Your task to perform on an android device: View the shopping cart on target.com. Search for alienware area 51 on target.com, select the first entry, add it to the cart, then select checkout. Image 0: 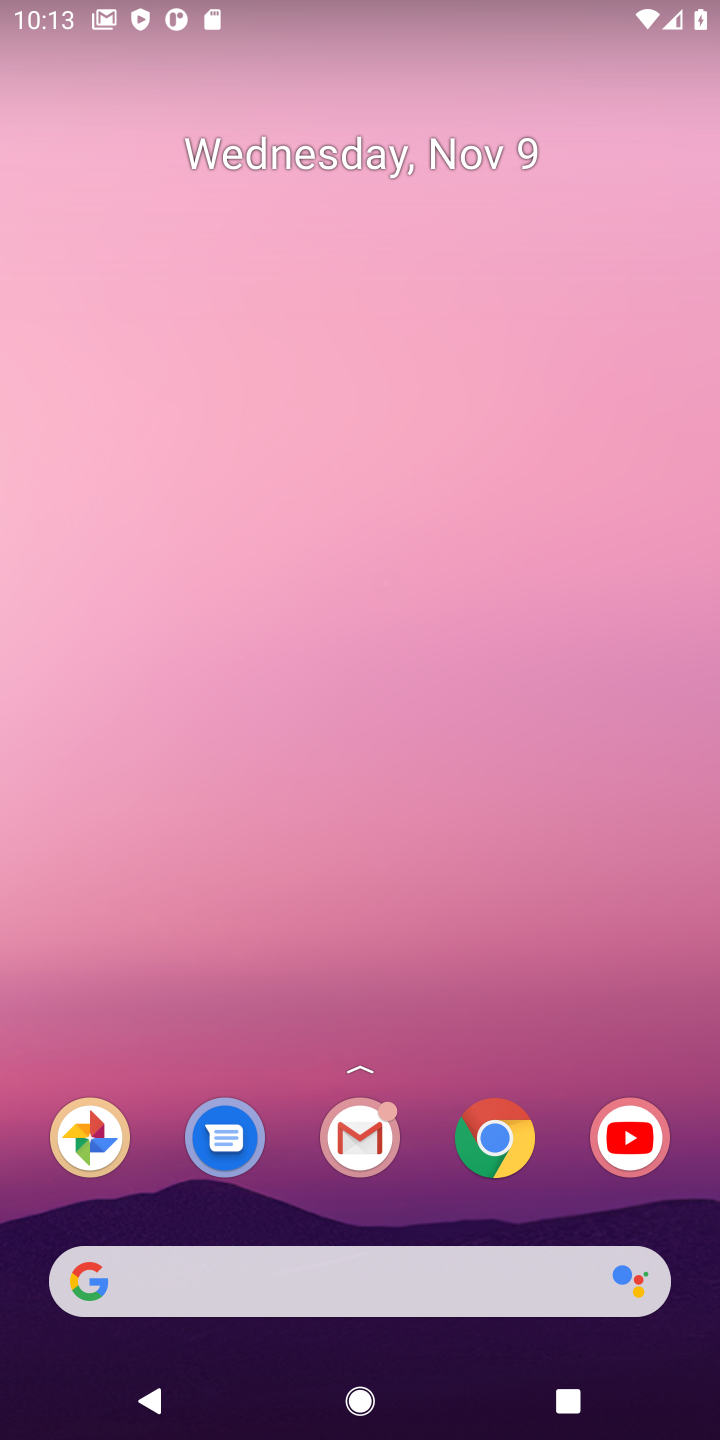
Step 0: drag from (432, 1128) to (473, 55)
Your task to perform on an android device: View the shopping cart on target.com. Search for alienware area 51 on target.com, select the first entry, add it to the cart, then select checkout. Image 1: 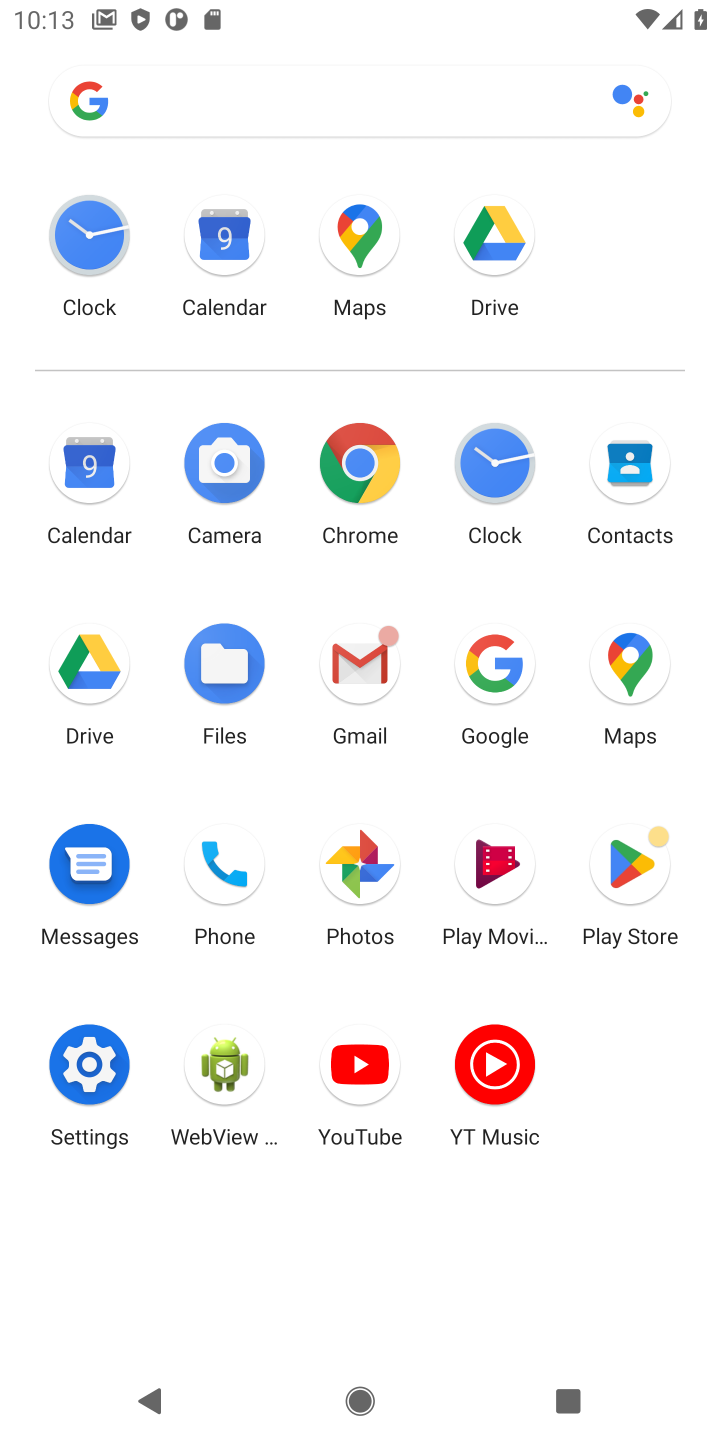
Step 1: click (377, 468)
Your task to perform on an android device: View the shopping cart on target.com. Search for alienware area 51 on target.com, select the first entry, add it to the cart, then select checkout. Image 2: 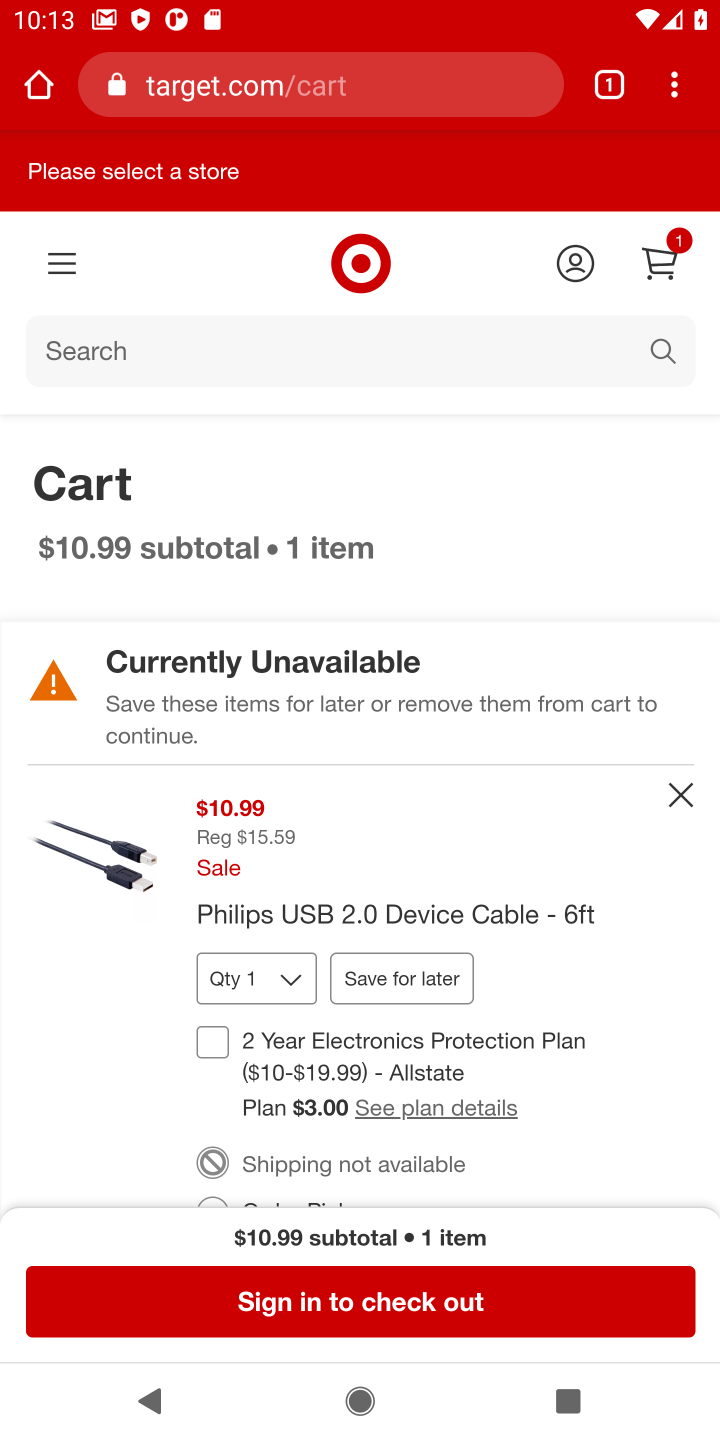
Step 2: click (409, 93)
Your task to perform on an android device: View the shopping cart on target.com. Search for alienware area 51 on target.com, select the first entry, add it to the cart, then select checkout. Image 3: 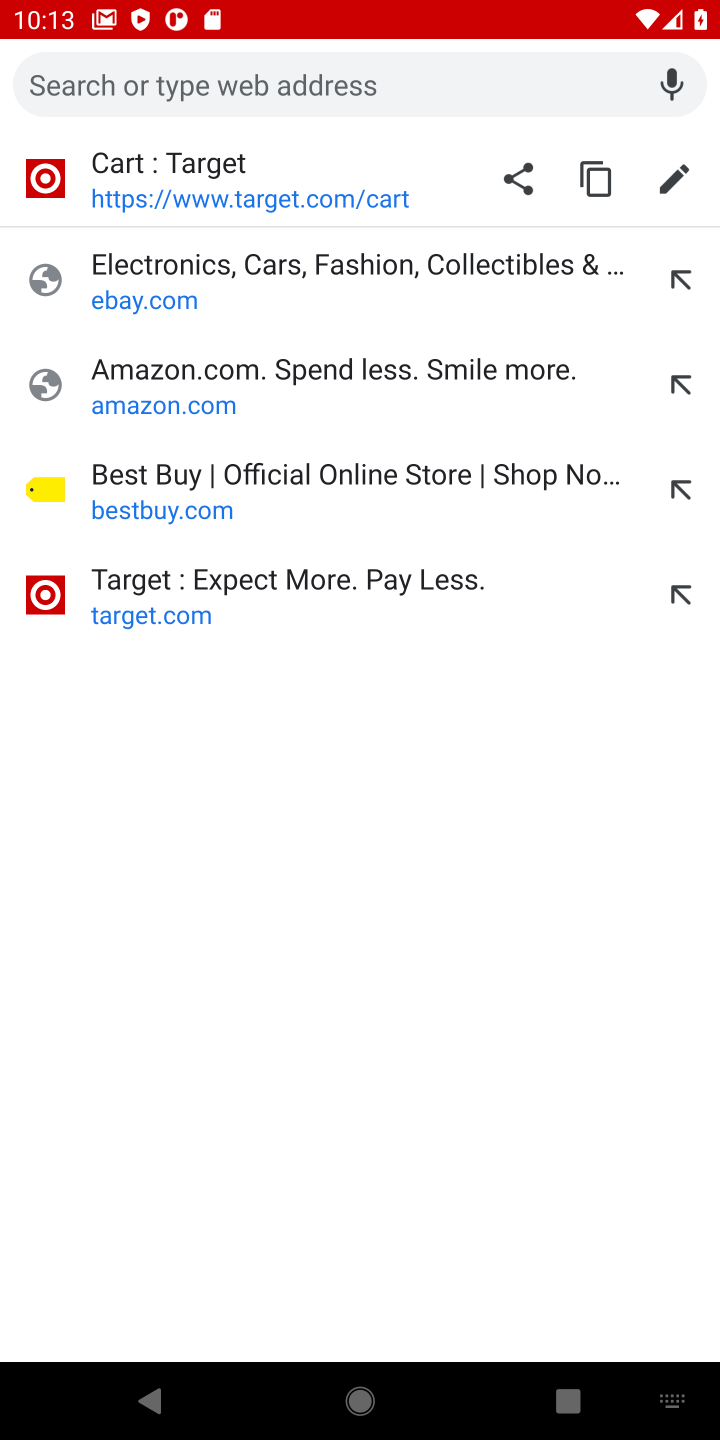
Step 3: type "target.com"
Your task to perform on an android device: View the shopping cart on target.com. Search for alienware area 51 on target.com, select the first entry, add it to the cart, then select checkout. Image 4: 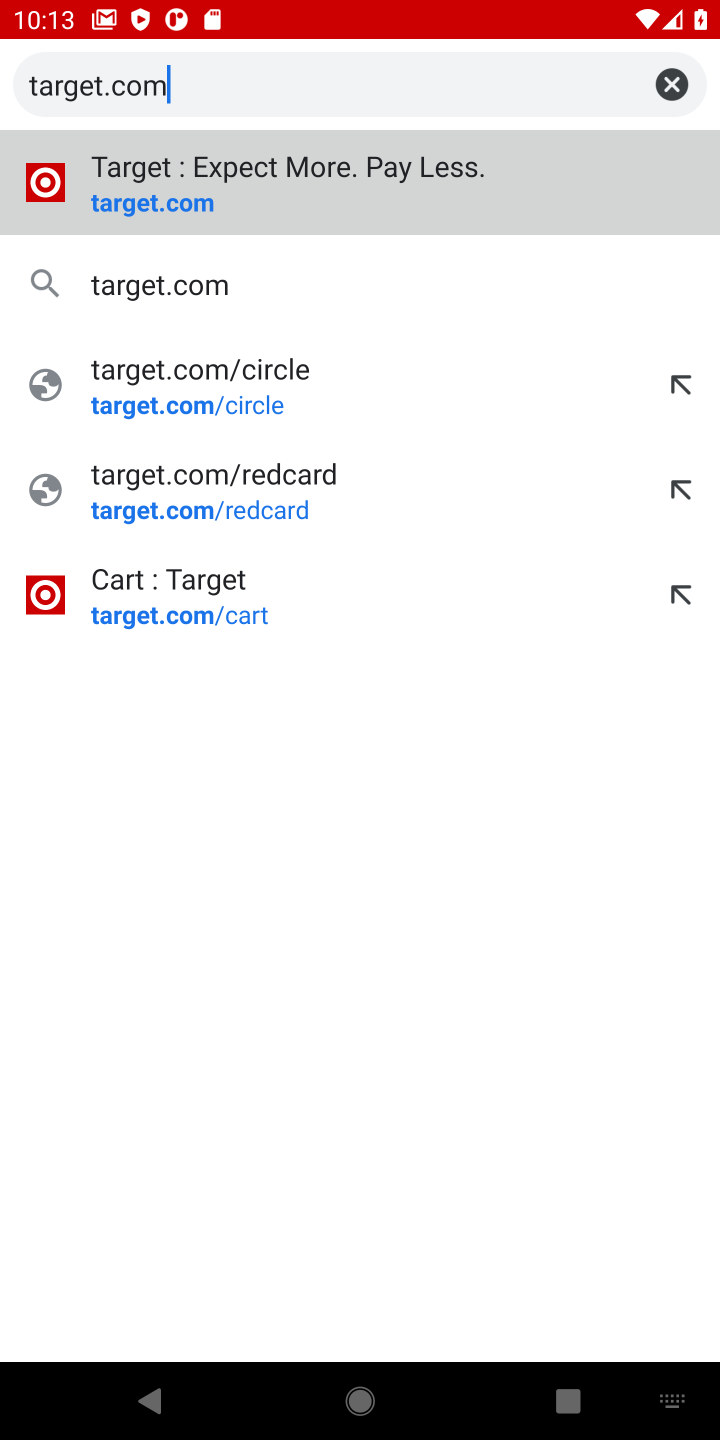
Step 4: press enter
Your task to perform on an android device: View the shopping cart on target.com. Search for alienware area 51 on target.com, select the first entry, add it to the cart, then select checkout. Image 5: 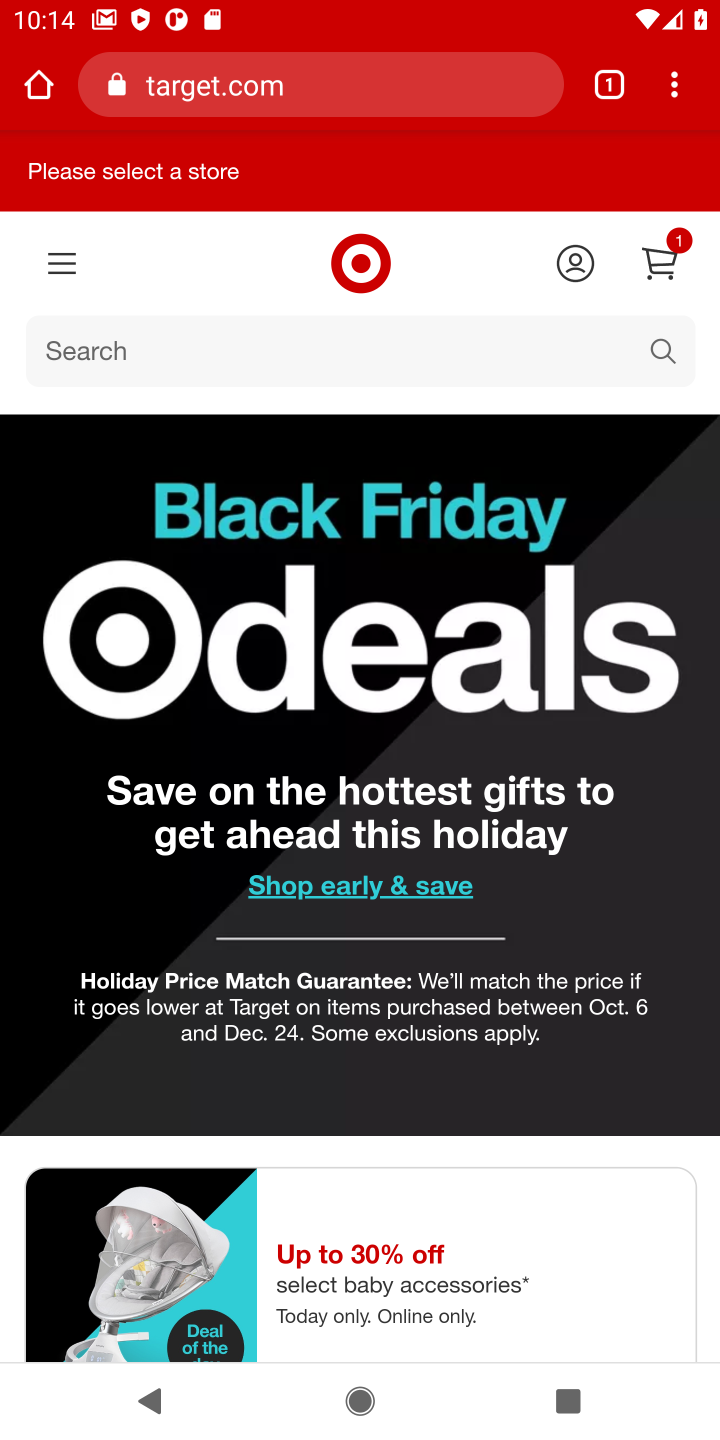
Step 5: click (655, 243)
Your task to perform on an android device: View the shopping cart on target.com. Search for alienware area 51 on target.com, select the first entry, add it to the cart, then select checkout. Image 6: 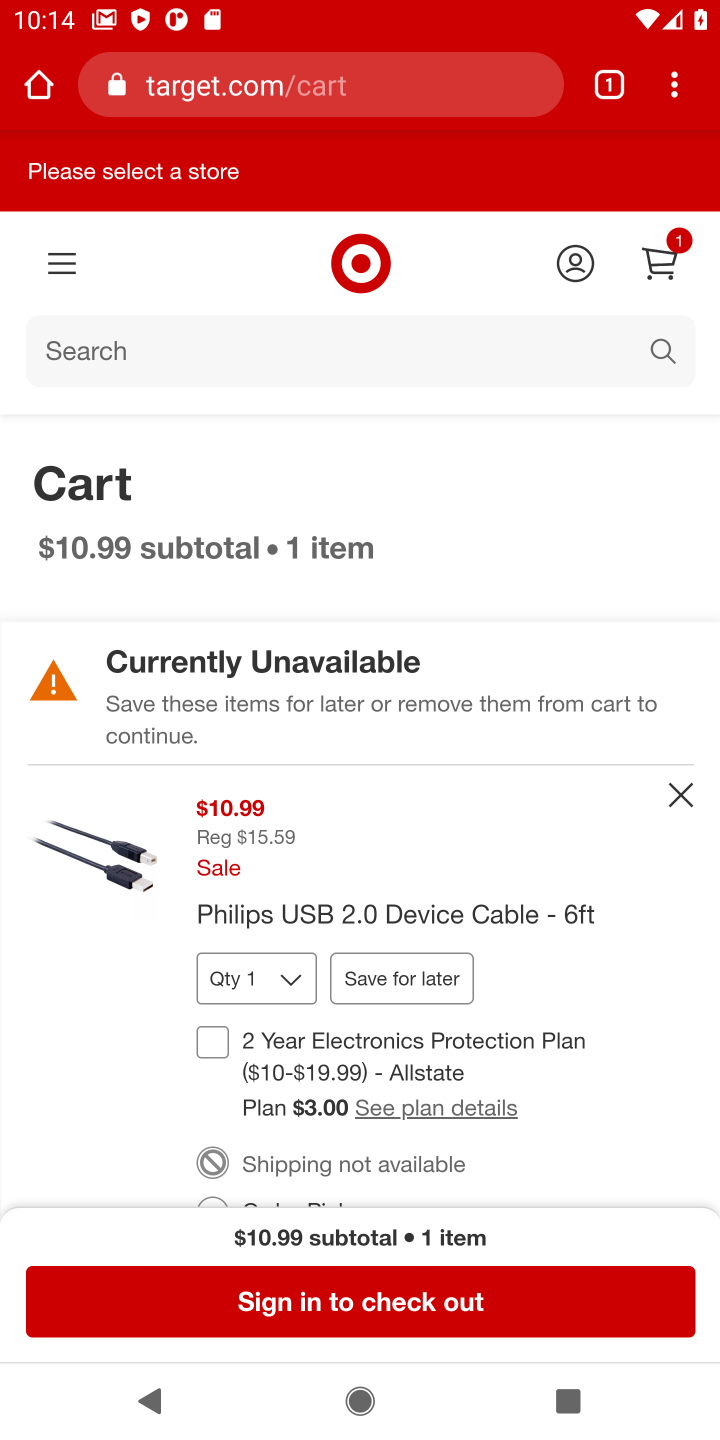
Step 6: click (320, 355)
Your task to perform on an android device: View the shopping cart on target.com. Search for alienware area 51 on target.com, select the first entry, add it to the cart, then select checkout. Image 7: 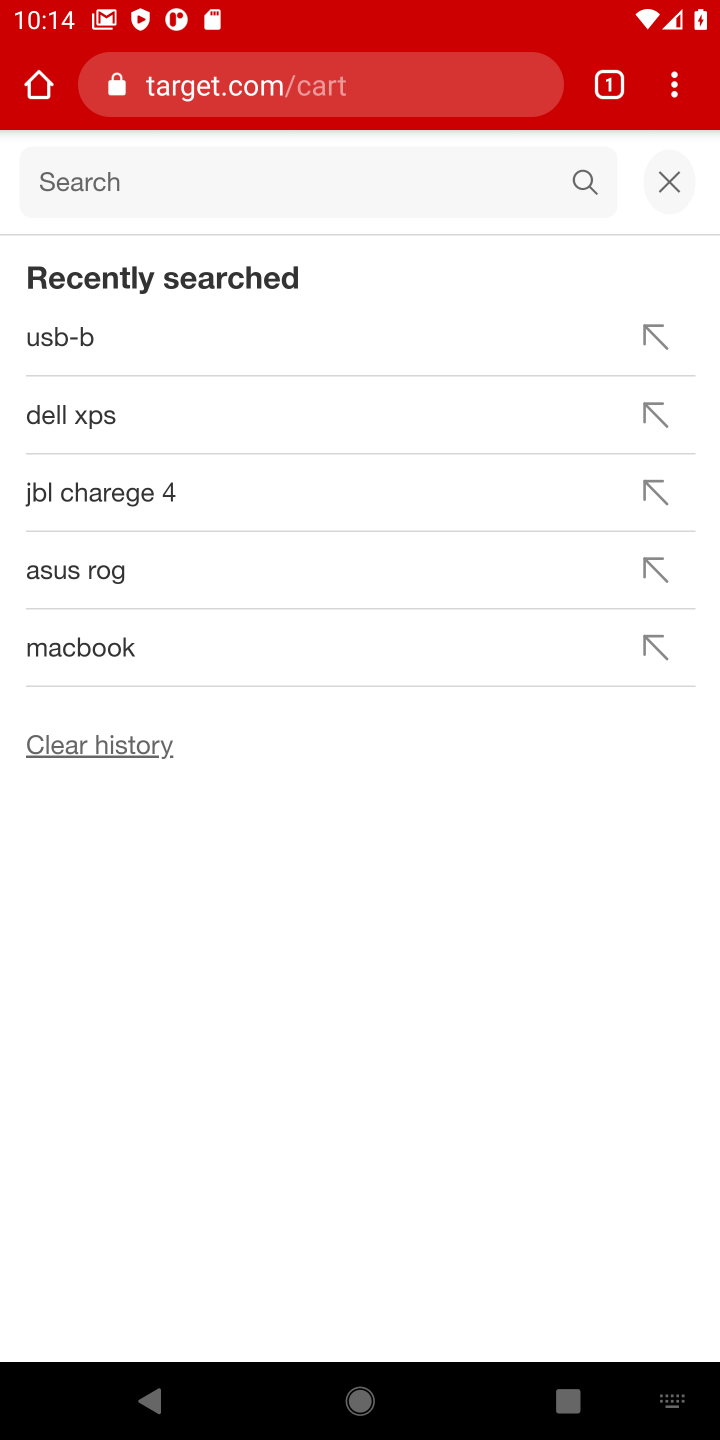
Step 7: type "alienware area 51"
Your task to perform on an android device: View the shopping cart on target.com. Search for alienware area 51 on target.com, select the first entry, add it to the cart, then select checkout. Image 8: 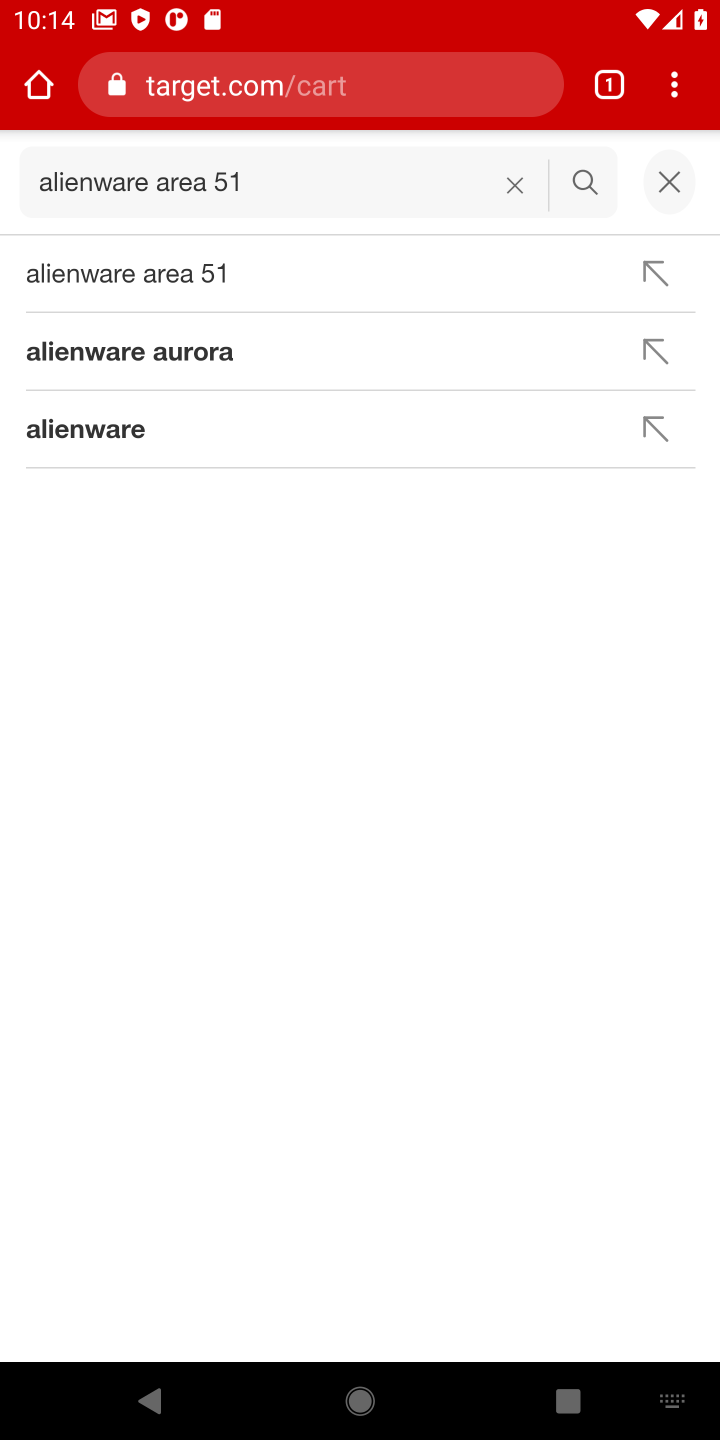
Step 8: press enter
Your task to perform on an android device: View the shopping cart on target.com. Search for alienware area 51 on target.com, select the first entry, add it to the cart, then select checkout. Image 9: 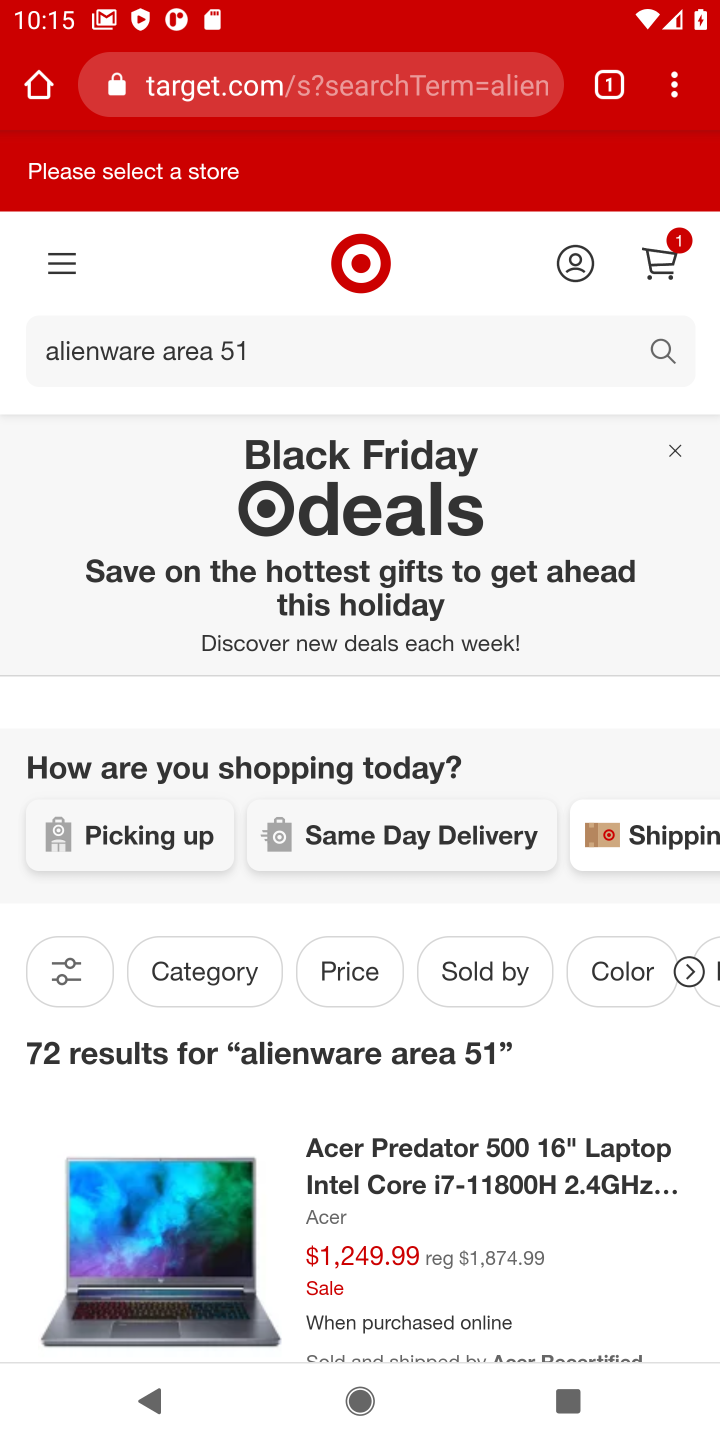
Step 9: task complete